Your task to perform on an android device: turn on notifications settings in the gmail app Image 0: 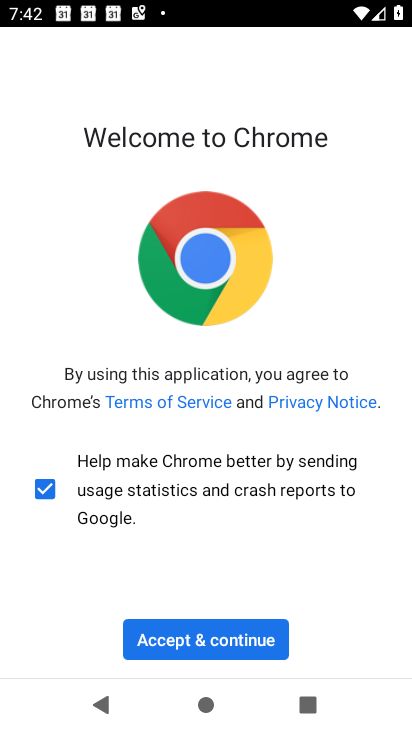
Step 0: press home button
Your task to perform on an android device: turn on notifications settings in the gmail app Image 1: 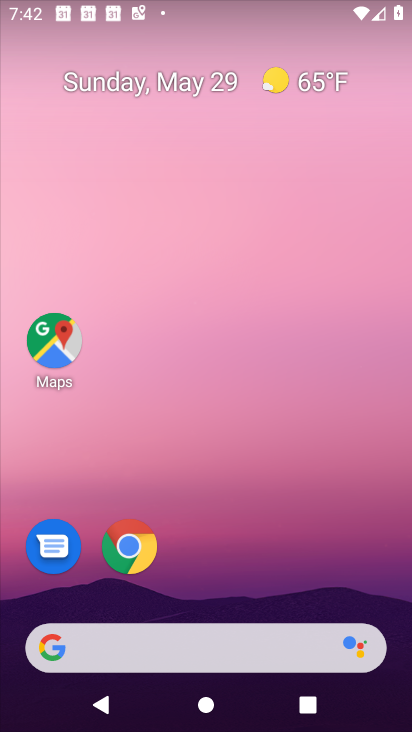
Step 1: drag from (167, 630) to (198, 297)
Your task to perform on an android device: turn on notifications settings in the gmail app Image 2: 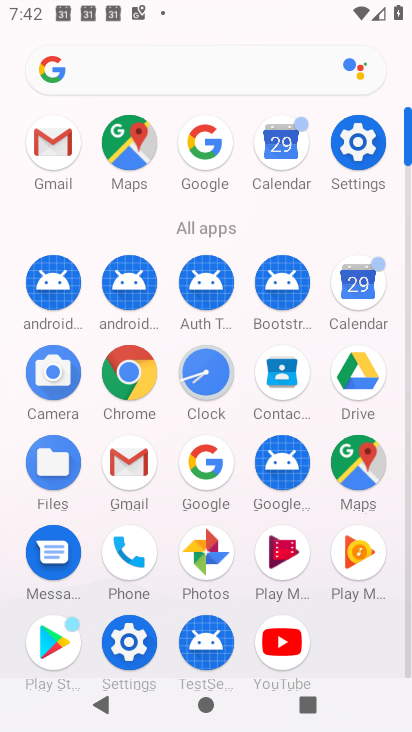
Step 2: click (140, 474)
Your task to perform on an android device: turn on notifications settings in the gmail app Image 3: 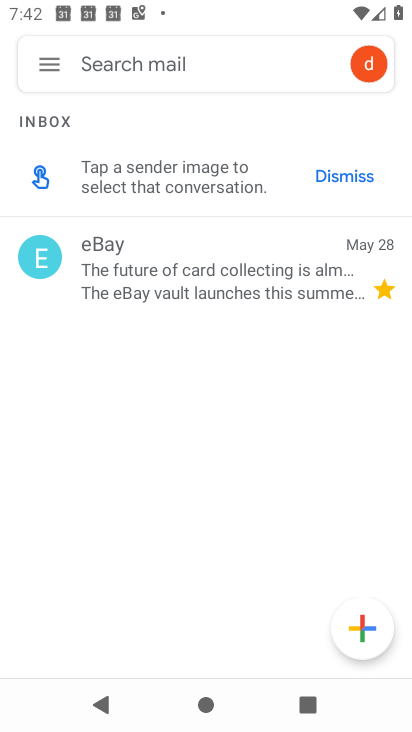
Step 3: click (52, 65)
Your task to perform on an android device: turn on notifications settings in the gmail app Image 4: 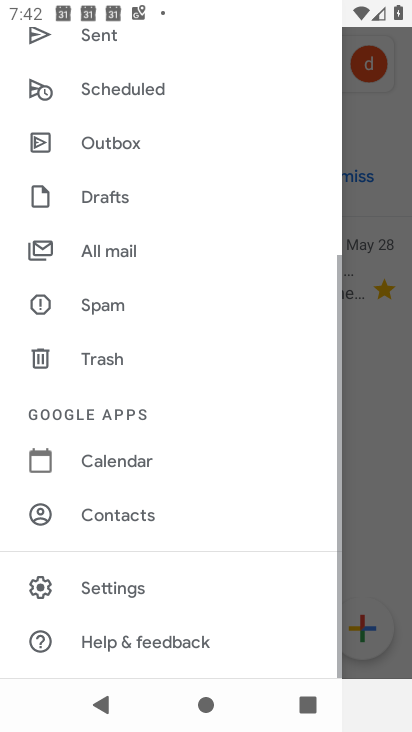
Step 4: click (114, 595)
Your task to perform on an android device: turn on notifications settings in the gmail app Image 5: 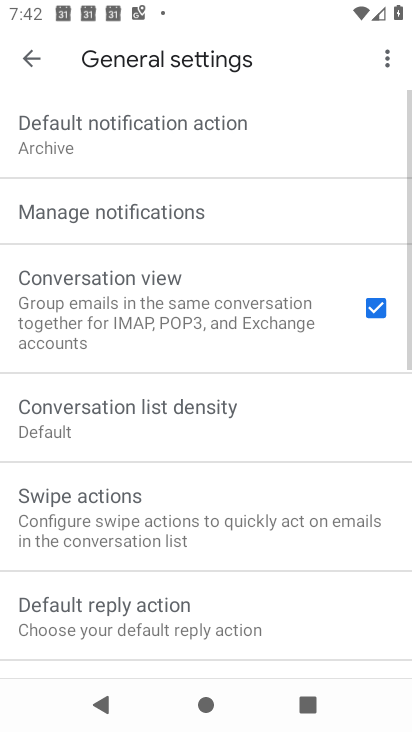
Step 5: click (85, 212)
Your task to perform on an android device: turn on notifications settings in the gmail app Image 6: 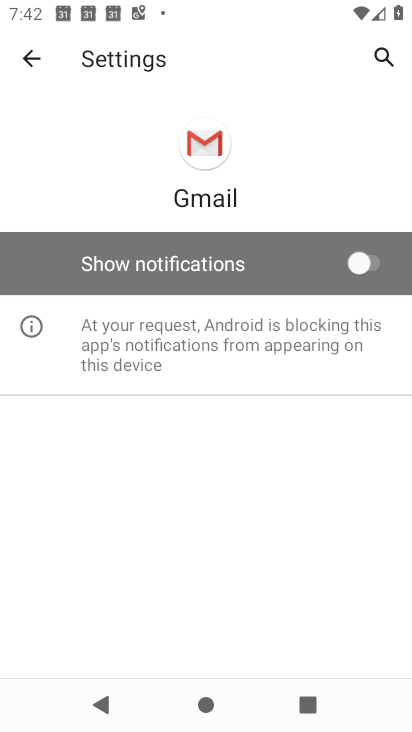
Step 6: click (367, 259)
Your task to perform on an android device: turn on notifications settings in the gmail app Image 7: 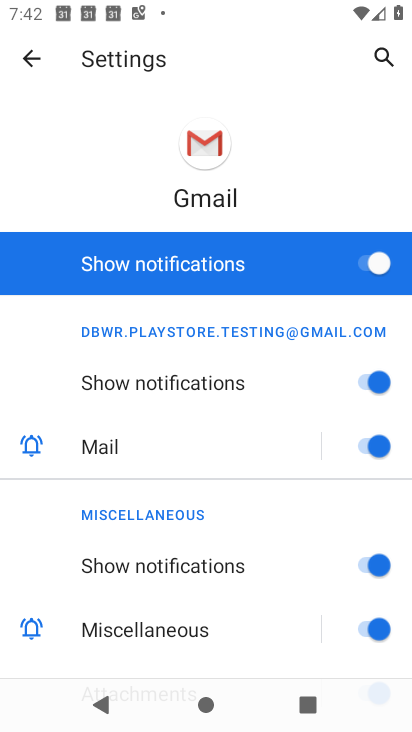
Step 7: task complete